Your task to perform on an android device: turn on airplane mode Image 0: 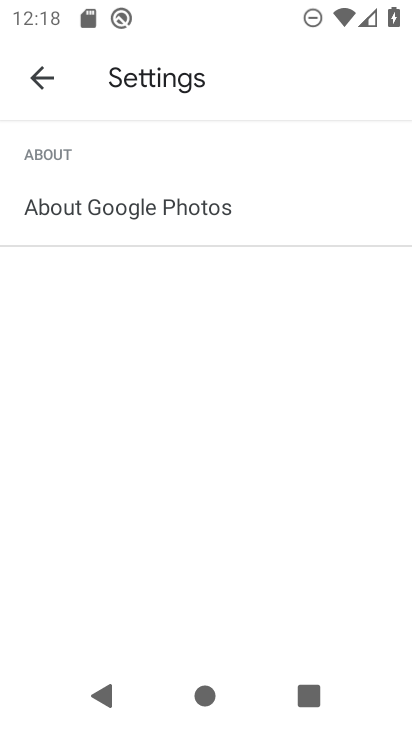
Step 0: press home button
Your task to perform on an android device: turn on airplane mode Image 1: 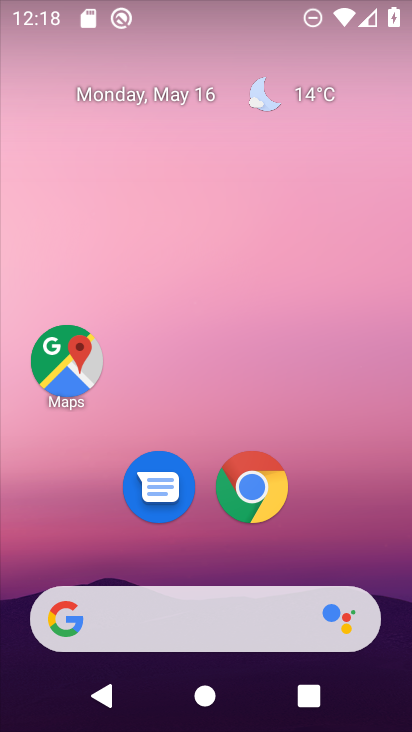
Step 1: drag from (242, 517) to (314, 152)
Your task to perform on an android device: turn on airplane mode Image 2: 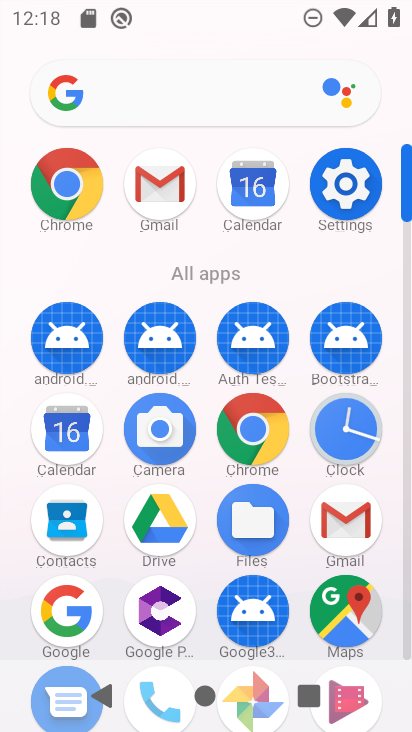
Step 2: click (336, 189)
Your task to perform on an android device: turn on airplane mode Image 3: 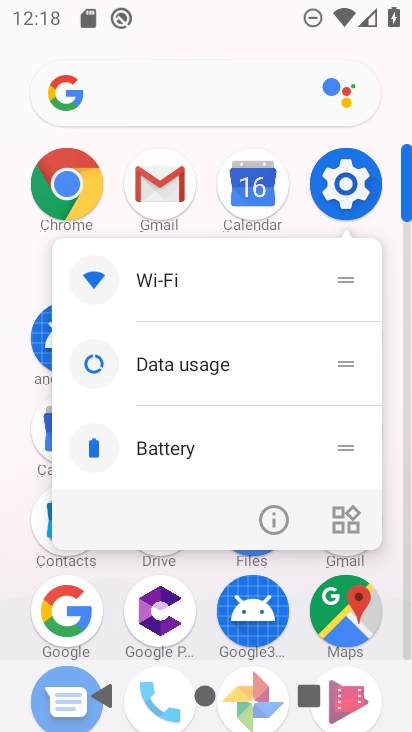
Step 3: click (335, 193)
Your task to perform on an android device: turn on airplane mode Image 4: 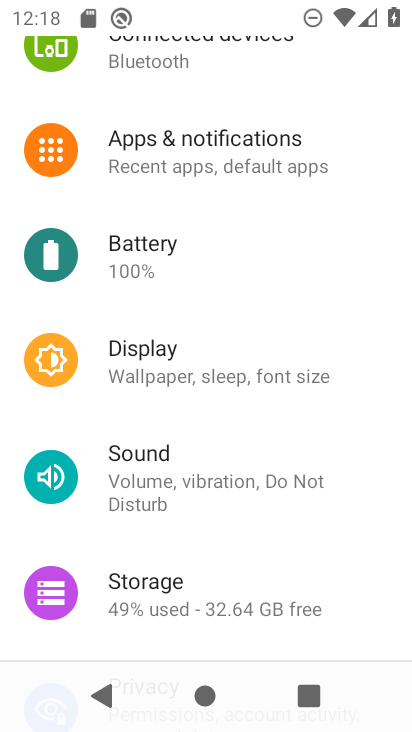
Step 4: drag from (327, 91) to (248, 578)
Your task to perform on an android device: turn on airplane mode Image 5: 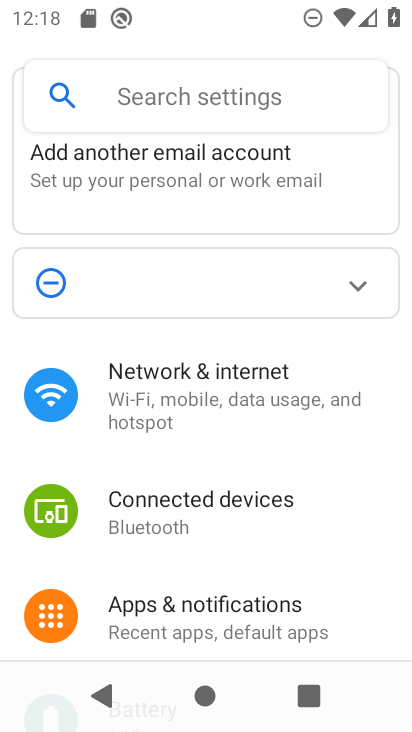
Step 5: click (230, 373)
Your task to perform on an android device: turn on airplane mode Image 6: 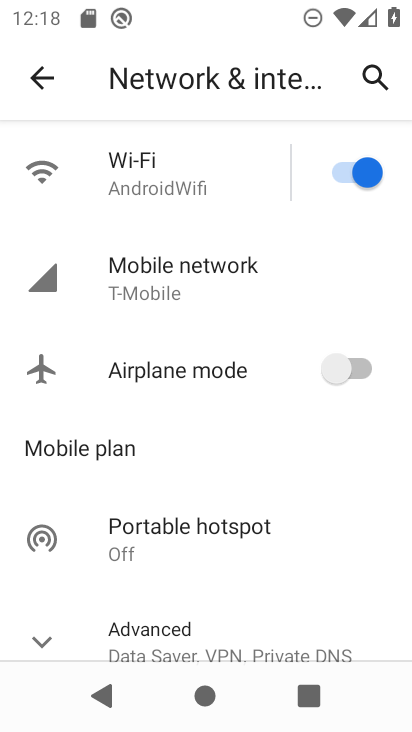
Step 6: click (367, 367)
Your task to perform on an android device: turn on airplane mode Image 7: 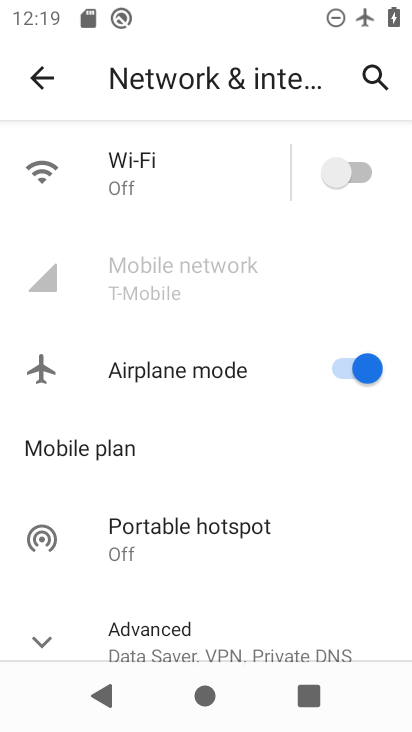
Step 7: task complete